Your task to perform on an android device: Go to Google maps Image 0: 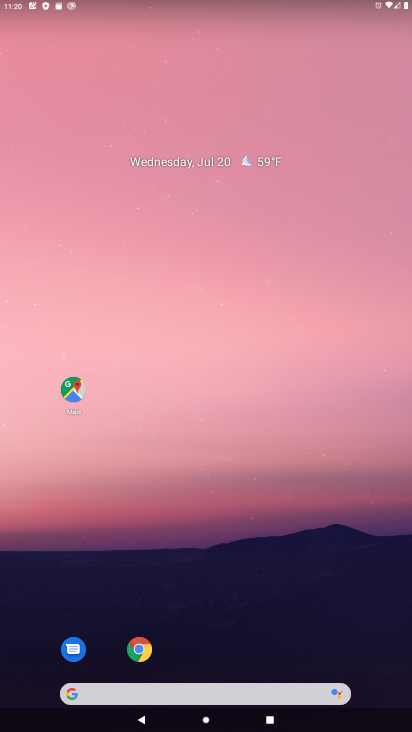
Step 0: click (71, 396)
Your task to perform on an android device: Go to Google maps Image 1: 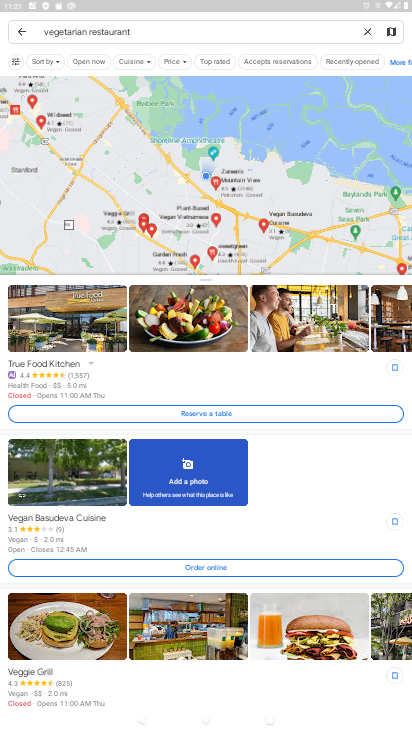
Step 1: task complete